Your task to perform on an android device: change the upload size in google photos Image 0: 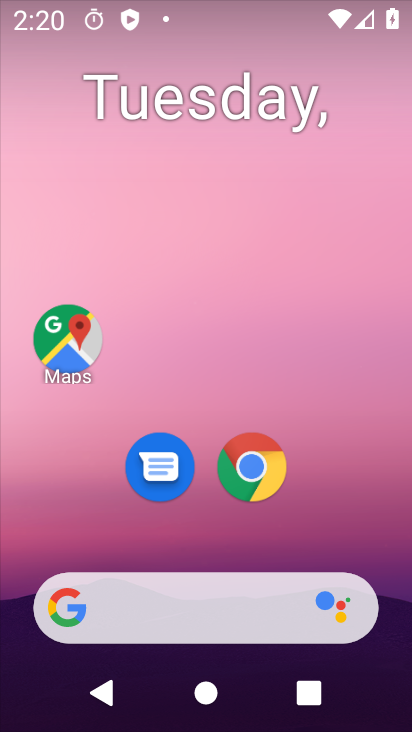
Step 0: drag from (349, 498) to (380, 102)
Your task to perform on an android device: change the upload size in google photos Image 1: 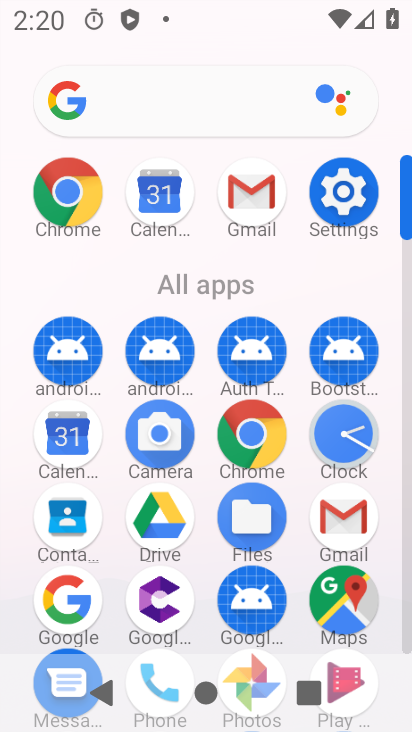
Step 1: drag from (293, 599) to (297, 293)
Your task to perform on an android device: change the upload size in google photos Image 2: 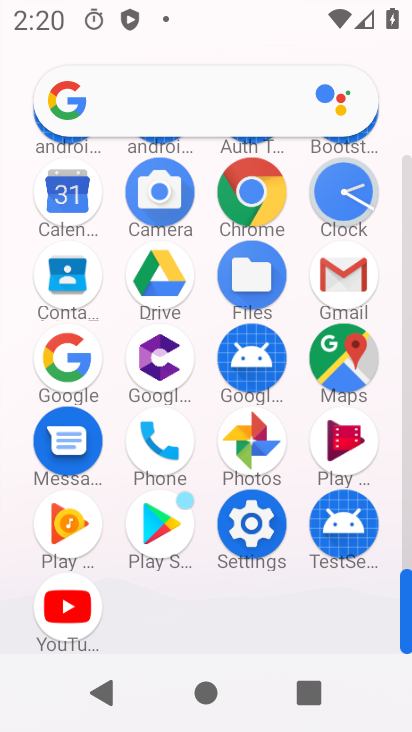
Step 2: click (254, 432)
Your task to perform on an android device: change the upload size in google photos Image 3: 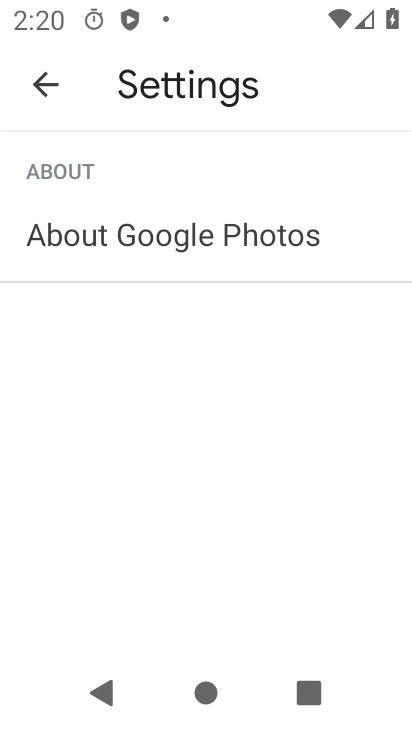
Step 3: click (48, 78)
Your task to perform on an android device: change the upload size in google photos Image 4: 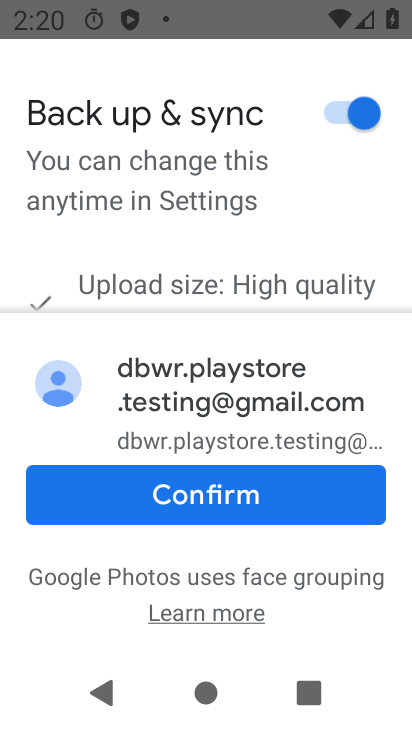
Step 4: click (238, 501)
Your task to perform on an android device: change the upload size in google photos Image 5: 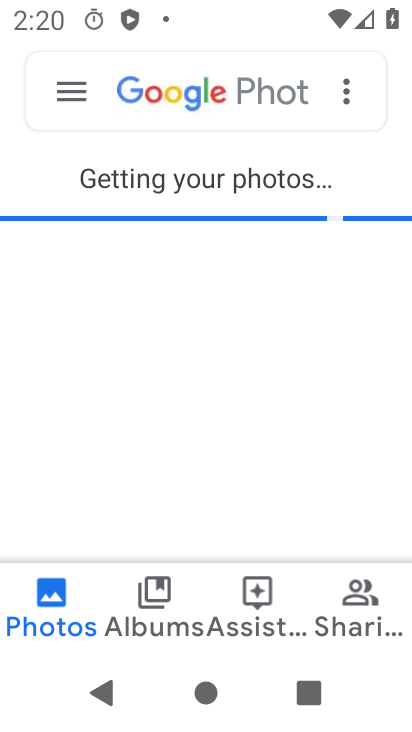
Step 5: click (68, 94)
Your task to perform on an android device: change the upload size in google photos Image 6: 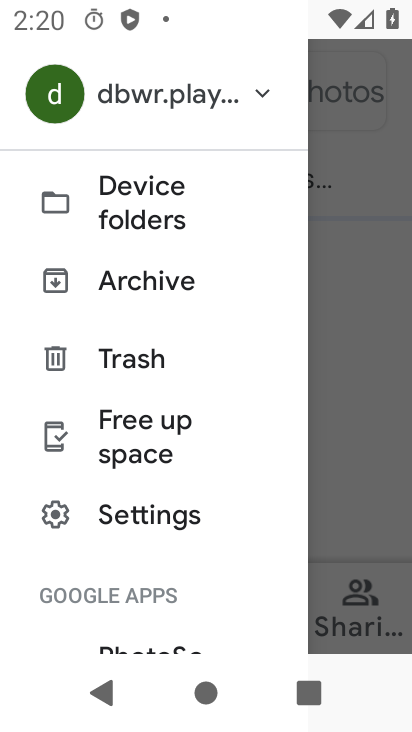
Step 6: click (175, 521)
Your task to perform on an android device: change the upload size in google photos Image 7: 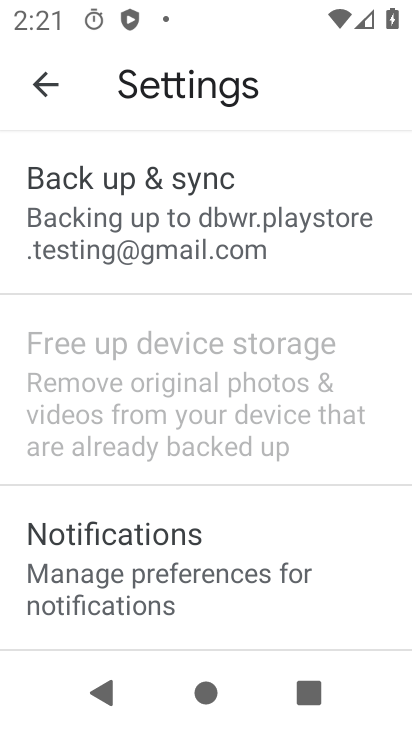
Step 7: drag from (309, 428) to (324, 254)
Your task to perform on an android device: change the upload size in google photos Image 8: 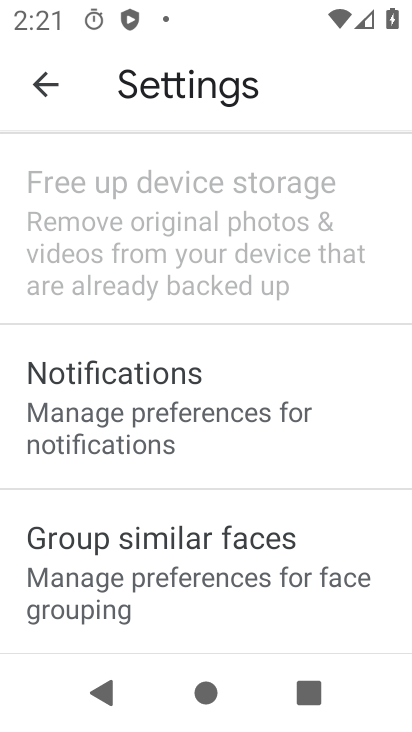
Step 8: drag from (327, 264) to (330, 443)
Your task to perform on an android device: change the upload size in google photos Image 9: 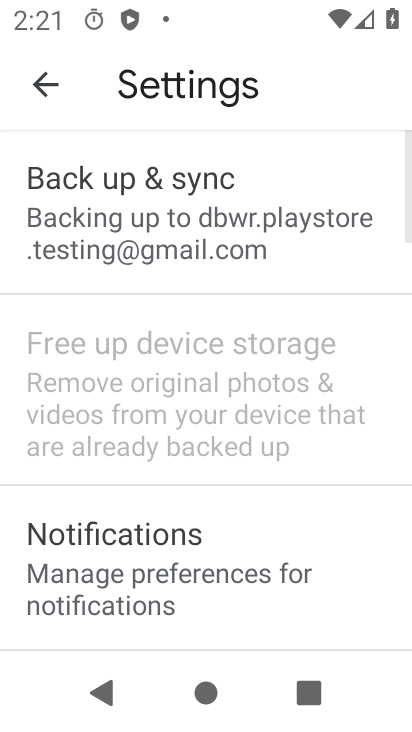
Step 9: click (249, 189)
Your task to perform on an android device: change the upload size in google photos Image 10: 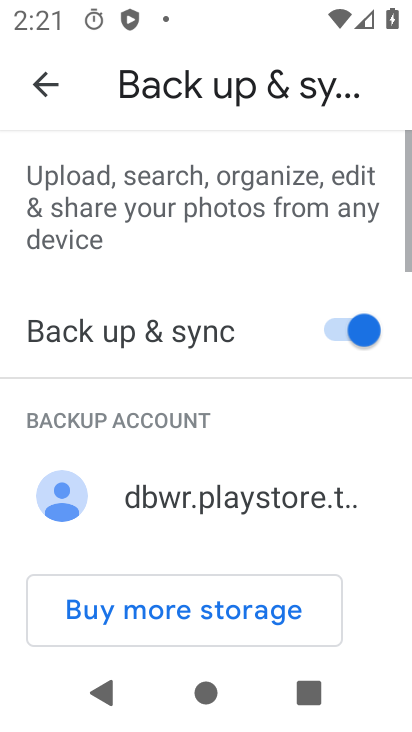
Step 10: drag from (307, 434) to (307, 280)
Your task to perform on an android device: change the upload size in google photos Image 11: 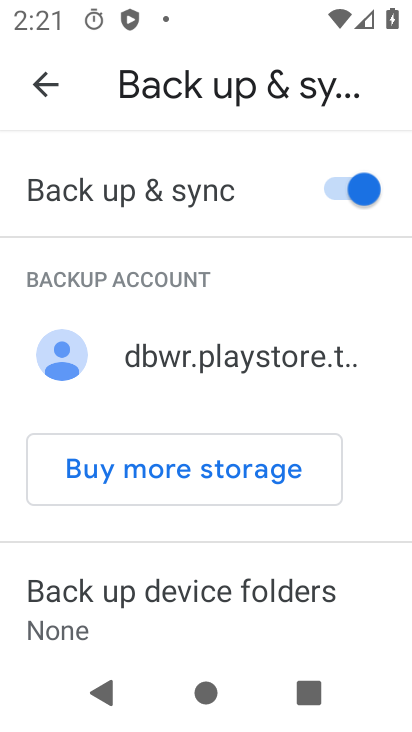
Step 11: drag from (350, 550) to (348, 334)
Your task to perform on an android device: change the upload size in google photos Image 12: 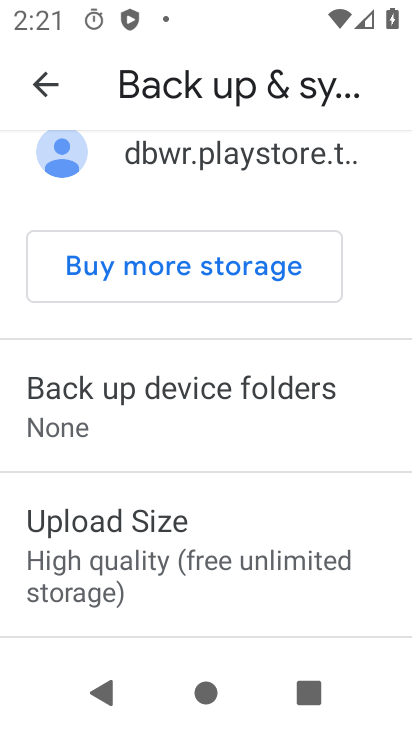
Step 12: click (262, 554)
Your task to perform on an android device: change the upload size in google photos Image 13: 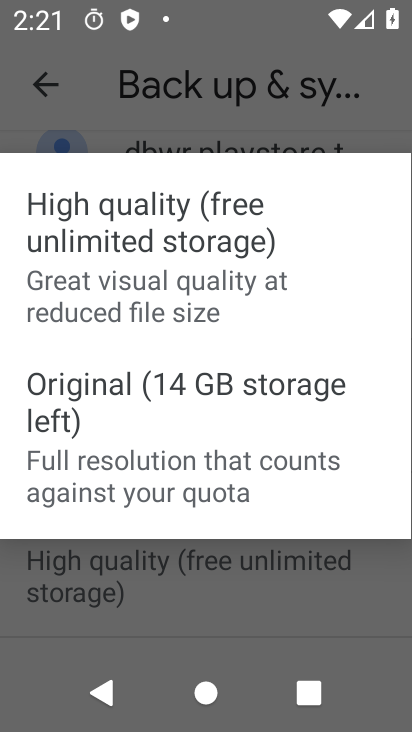
Step 13: click (190, 422)
Your task to perform on an android device: change the upload size in google photos Image 14: 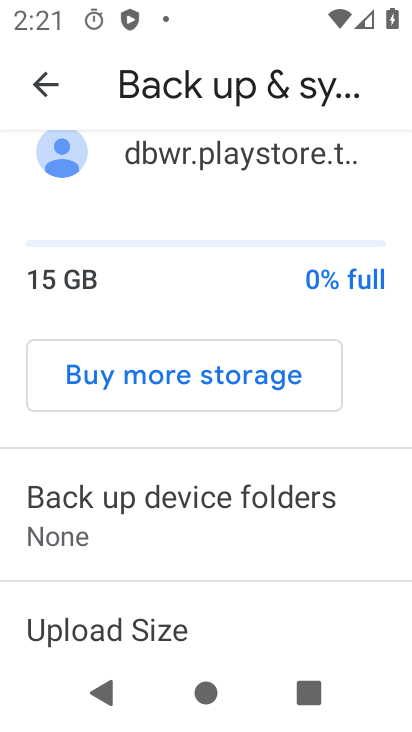
Step 14: task complete